Your task to perform on an android device: When is my next meeting? Image 0: 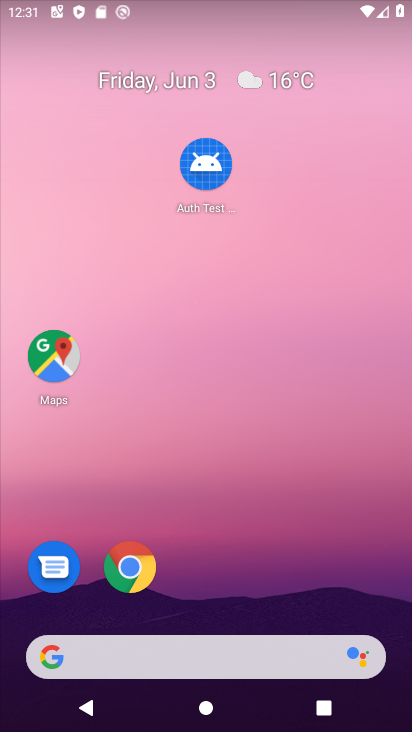
Step 0: click (190, 92)
Your task to perform on an android device: When is my next meeting? Image 1: 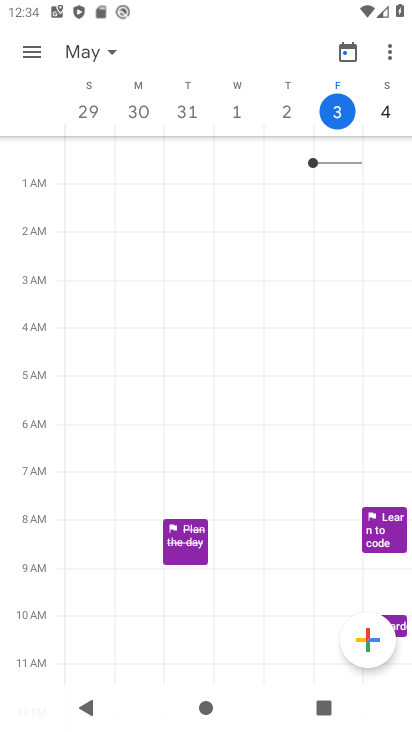
Step 1: task complete